Your task to perform on an android device: Go to wifi settings Image 0: 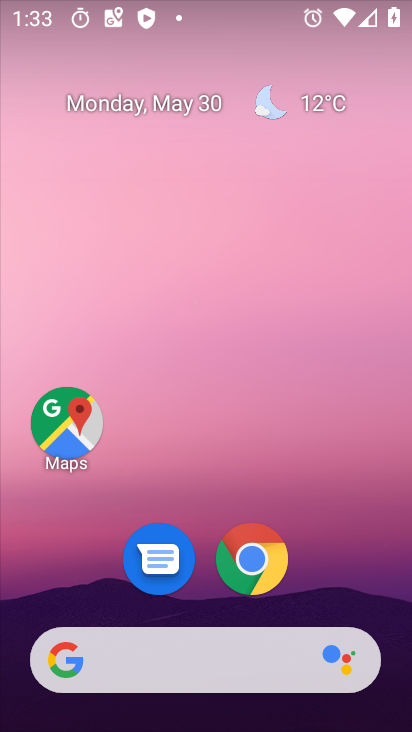
Step 0: drag from (83, 92) to (130, 460)
Your task to perform on an android device: Go to wifi settings Image 1: 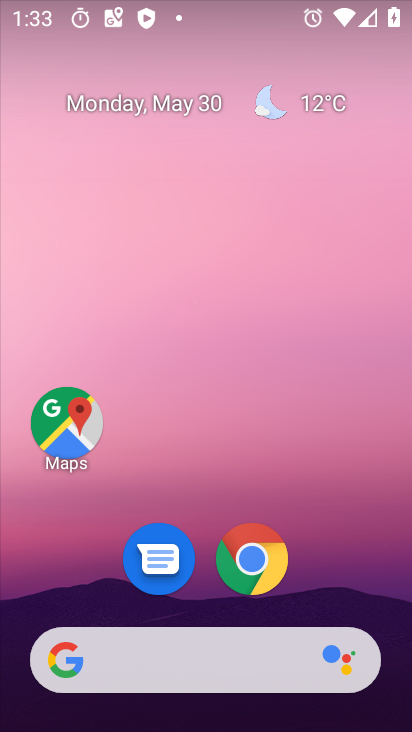
Step 1: drag from (98, 11) to (134, 470)
Your task to perform on an android device: Go to wifi settings Image 2: 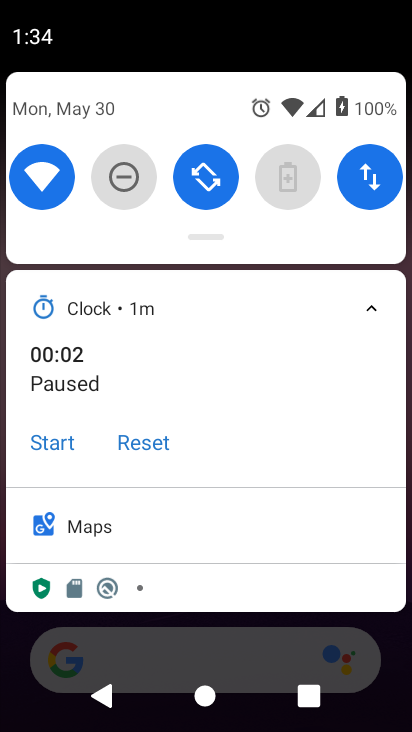
Step 2: click (41, 186)
Your task to perform on an android device: Go to wifi settings Image 3: 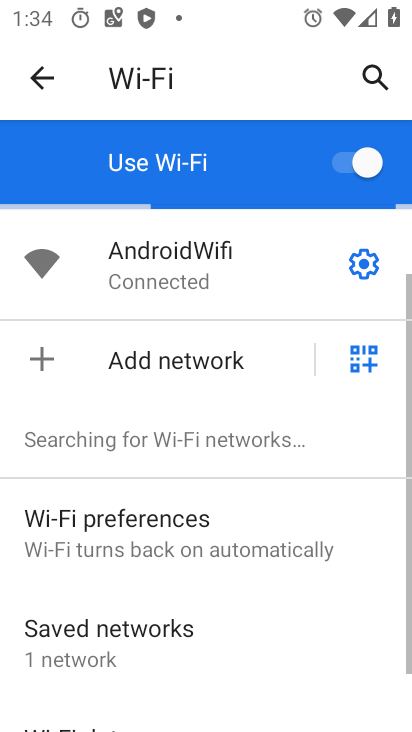
Step 3: task complete